Your task to perform on an android device: See recent photos Image 0: 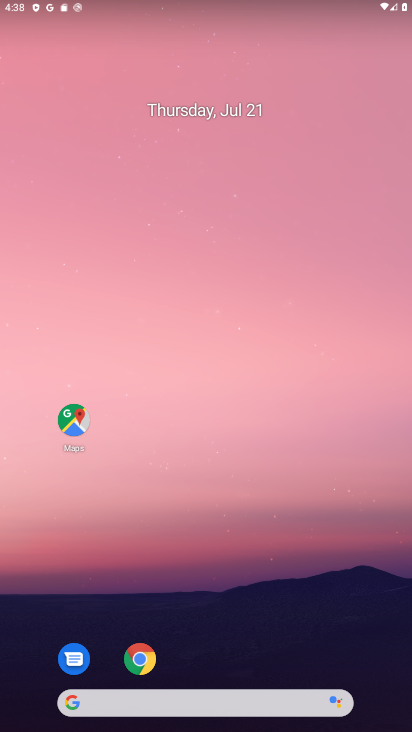
Step 0: drag from (215, 640) to (183, 278)
Your task to perform on an android device: See recent photos Image 1: 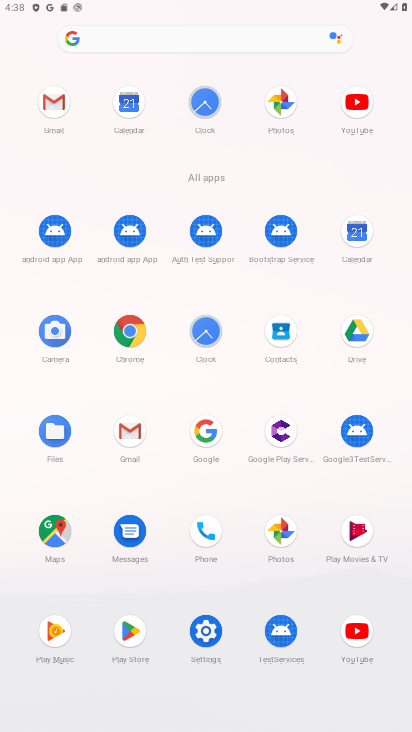
Step 1: click (283, 523)
Your task to perform on an android device: See recent photos Image 2: 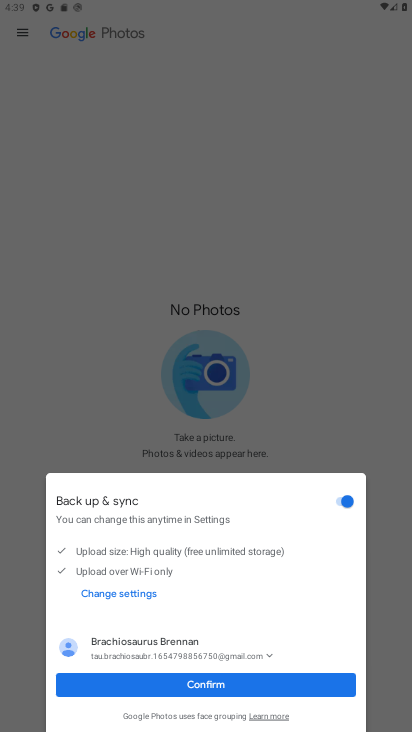
Step 2: click (202, 688)
Your task to perform on an android device: See recent photos Image 3: 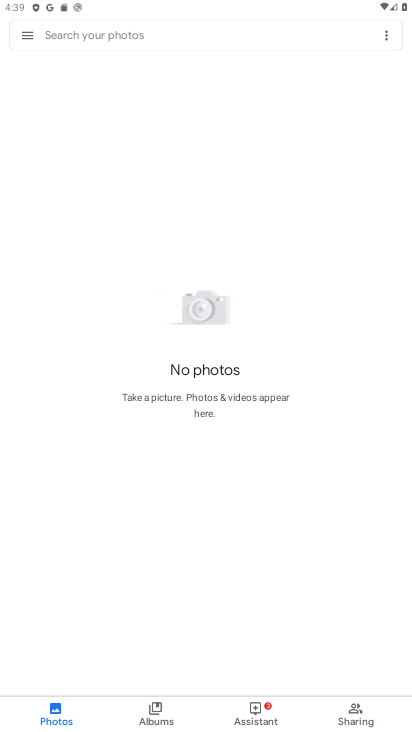
Step 3: task complete